Your task to perform on an android device: add a contact in the contacts app Image 0: 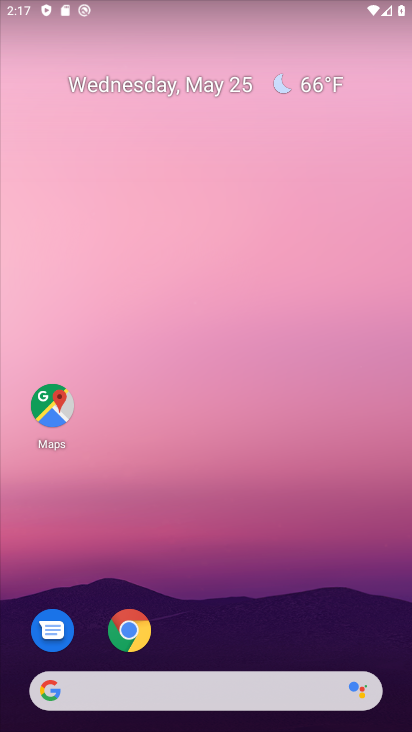
Step 0: press home button
Your task to perform on an android device: add a contact in the contacts app Image 1: 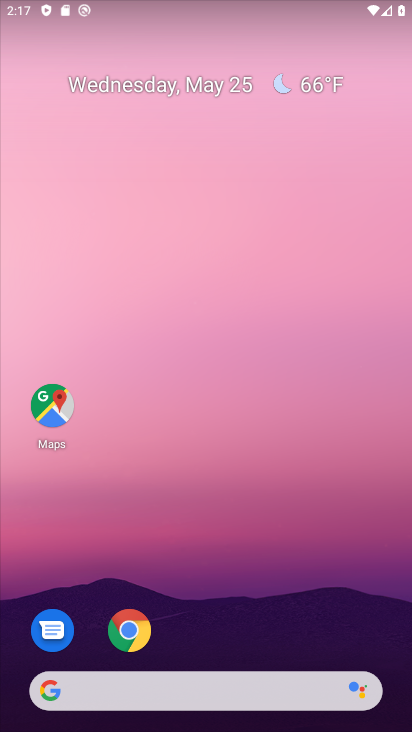
Step 1: drag from (216, 650) to (245, 61)
Your task to perform on an android device: add a contact in the contacts app Image 2: 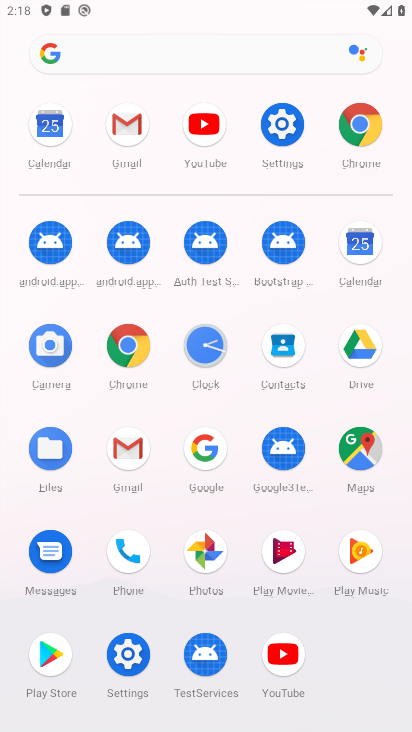
Step 2: click (283, 340)
Your task to perform on an android device: add a contact in the contacts app Image 3: 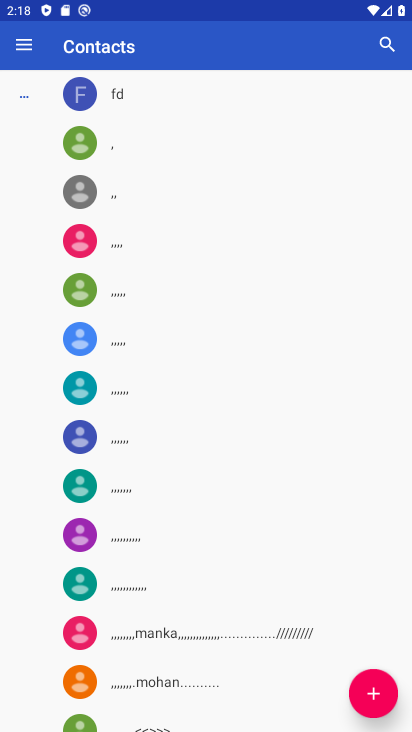
Step 3: click (362, 691)
Your task to perform on an android device: add a contact in the contacts app Image 4: 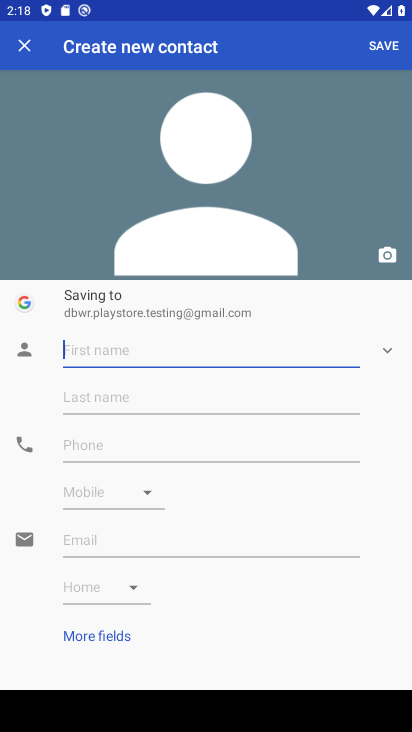
Step 4: type "jhvvfvv"
Your task to perform on an android device: add a contact in the contacts app Image 5: 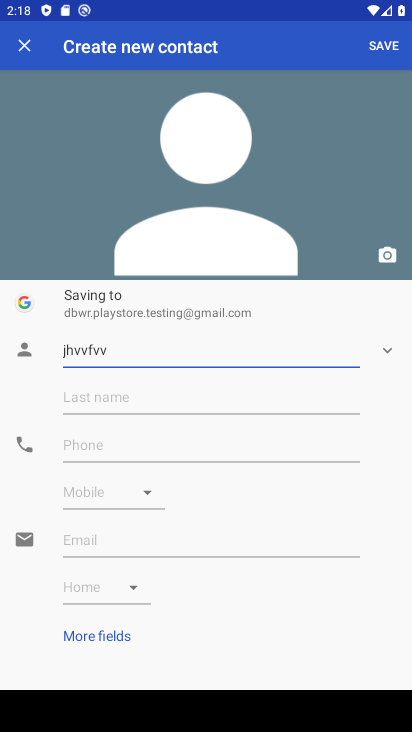
Step 5: click (376, 42)
Your task to perform on an android device: add a contact in the contacts app Image 6: 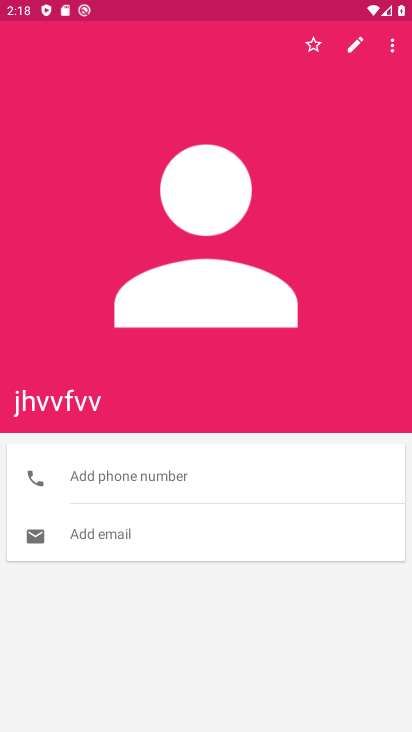
Step 6: task complete